Your task to perform on an android device: Search for pizza restaurants on Maps Image 0: 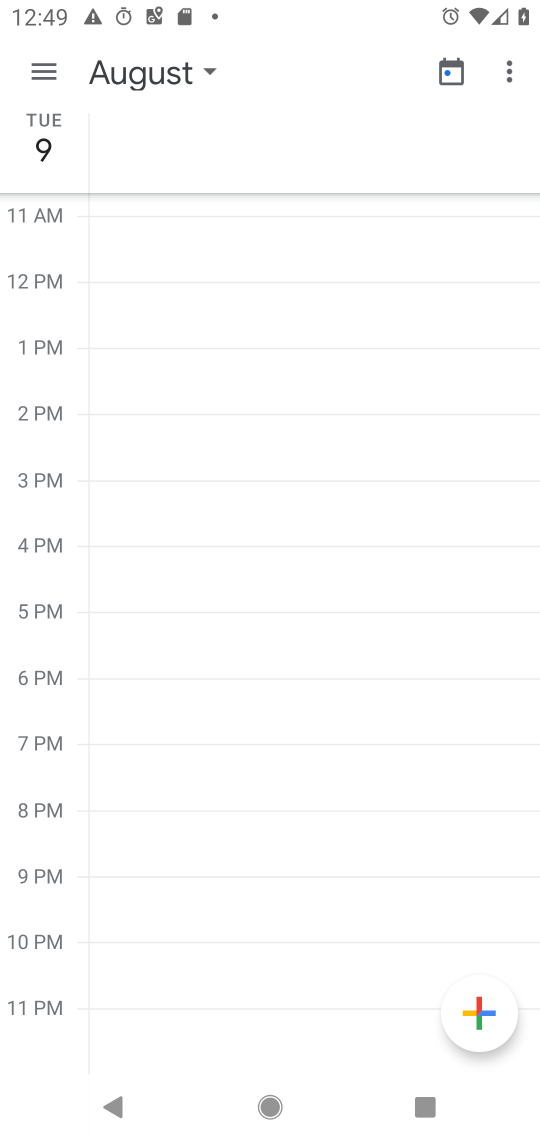
Step 0: press home button
Your task to perform on an android device: Search for pizza restaurants on Maps Image 1: 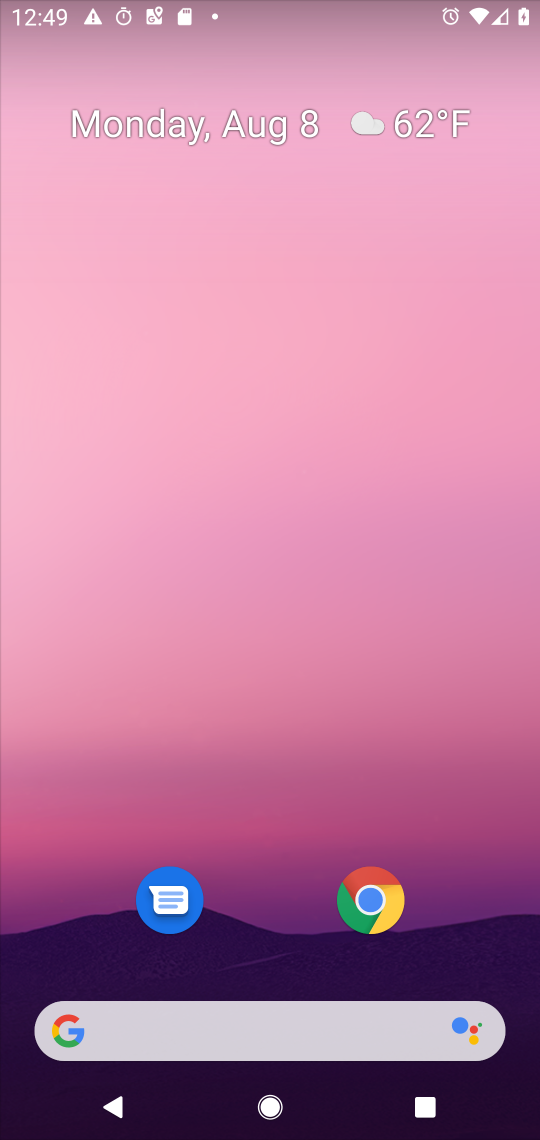
Step 1: drag from (279, 952) to (285, 160)
Your task to perform on an android device: Search for pizza restaurants on Maps Image 2: 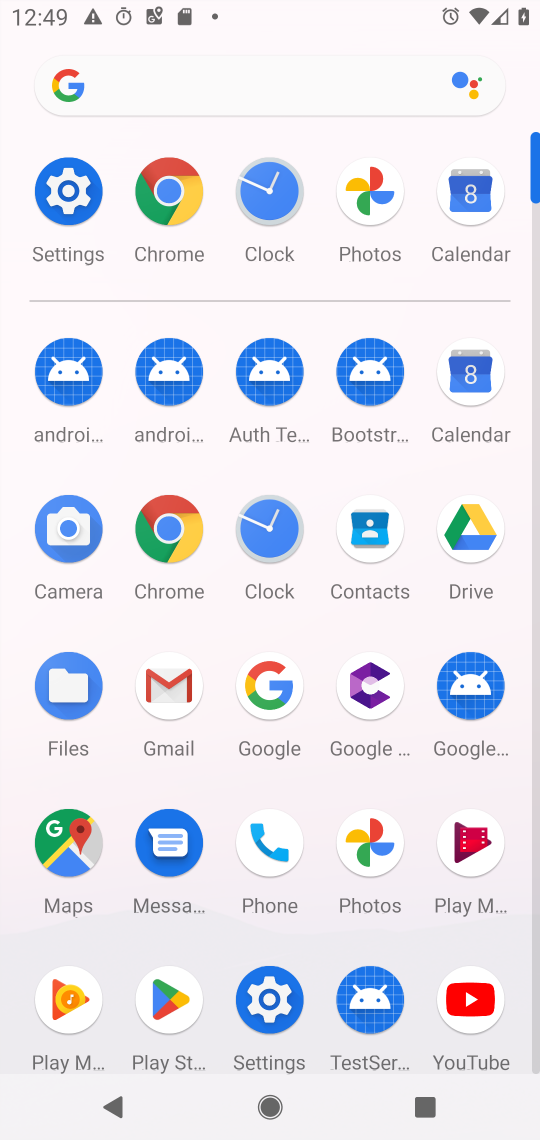
Step 2: click (70, 840)
Your task to perform on an android device: Search for pizza restaurants on Maps Image 3: 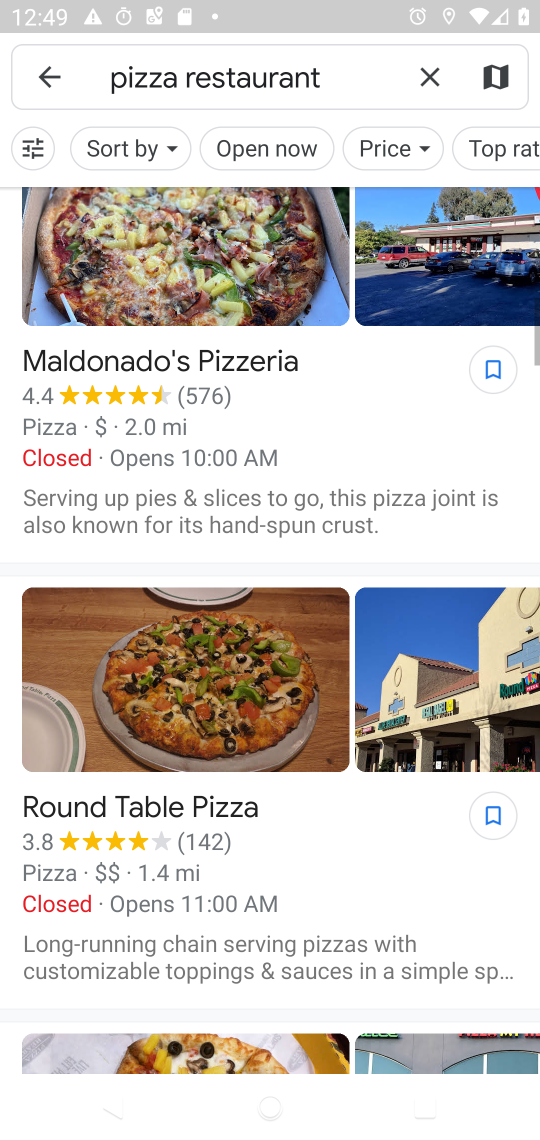
Step 3: click (424, 75)
Your task to perform on an android device: Search for pizza restaurants on Maps Image 4: 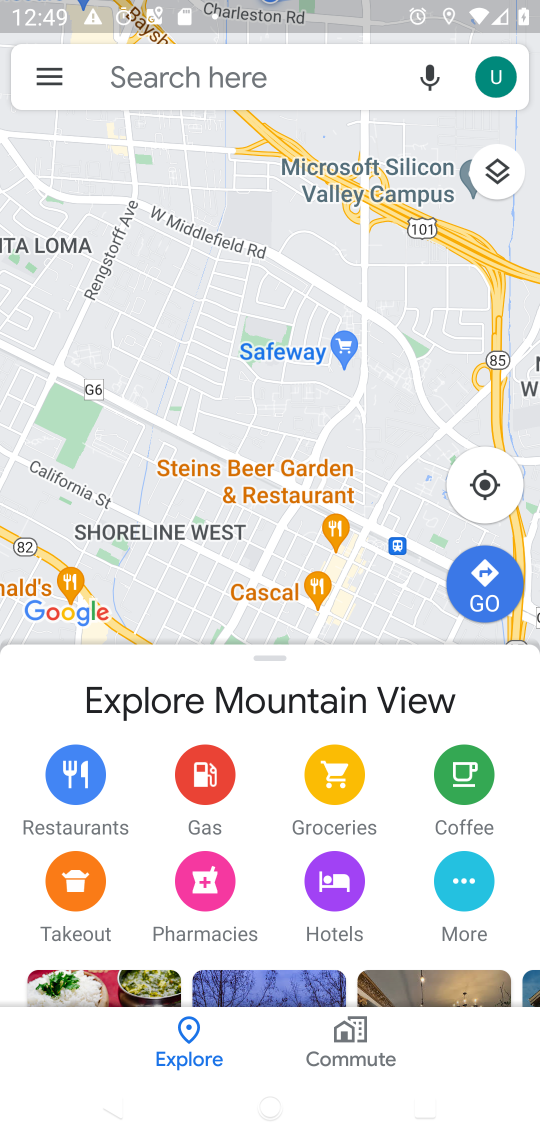
Step 4: click (163, 61)
Your task to perform on an android device: Search for pizza restaurants on Maps Image 5: 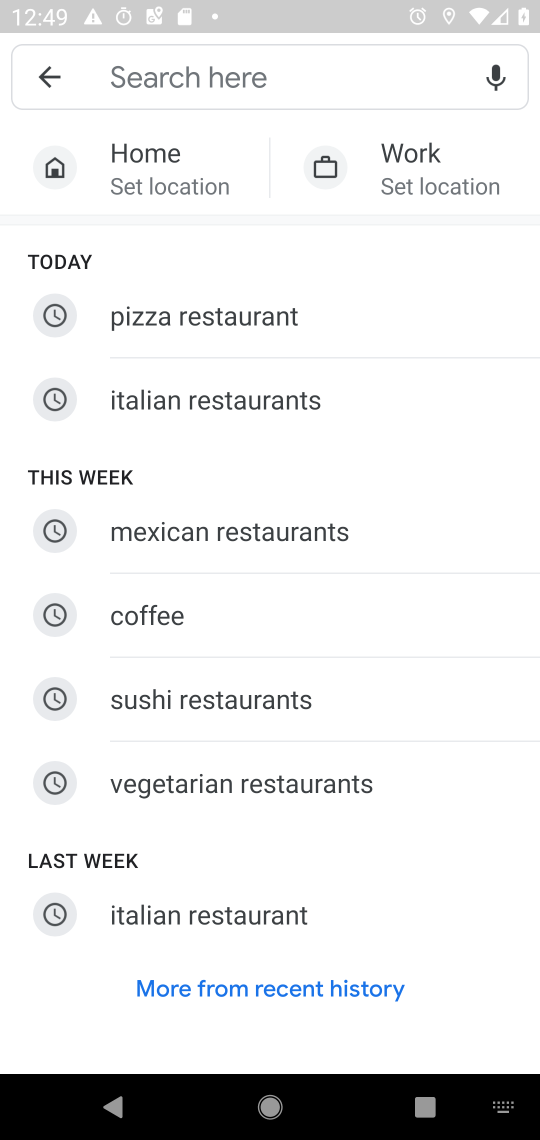
Step 5: click (319, 308)
Your task to perform on an android device: Search for pizza restaurants on Maps Image 6: 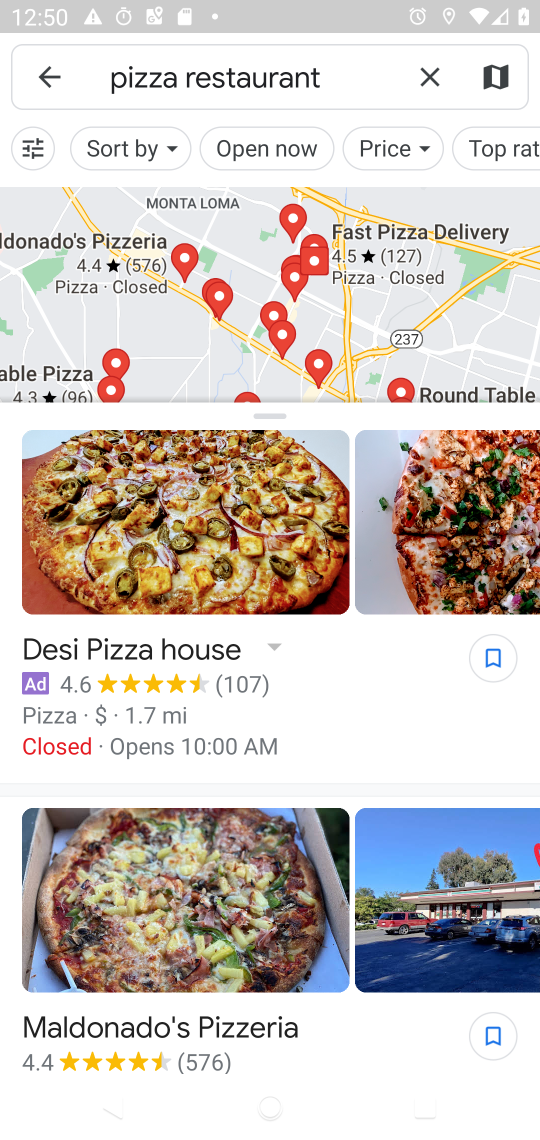
Step 6: task complete